Your task to perform on an android device: Do I have any events this weekend? Image 0: 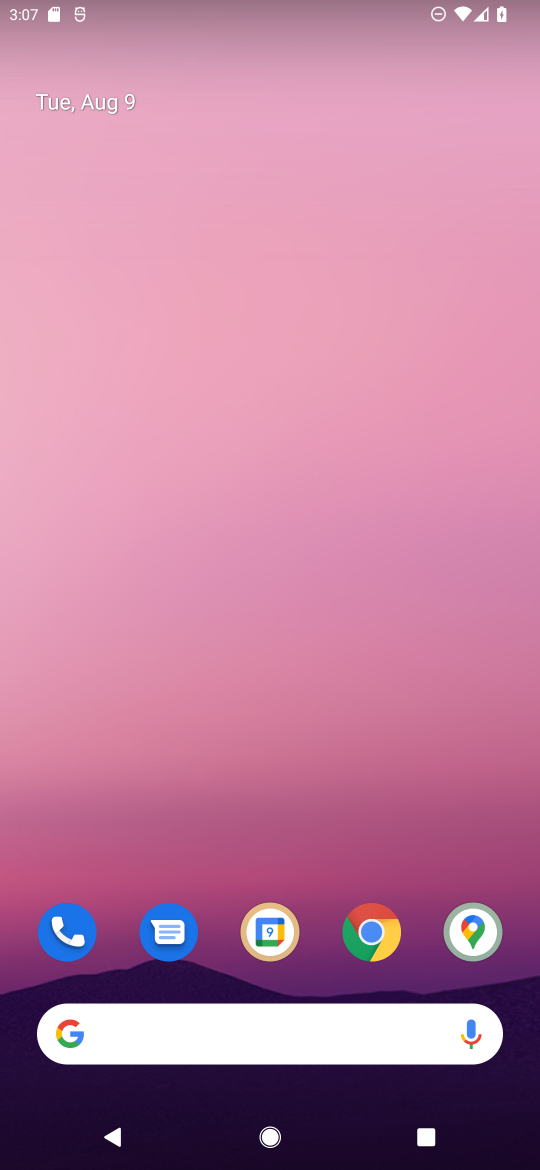
Step 0: drag from (67, 1097) to (324, 213)
Your task to perform on an android device: Do I have any events this weekend? Image 1: 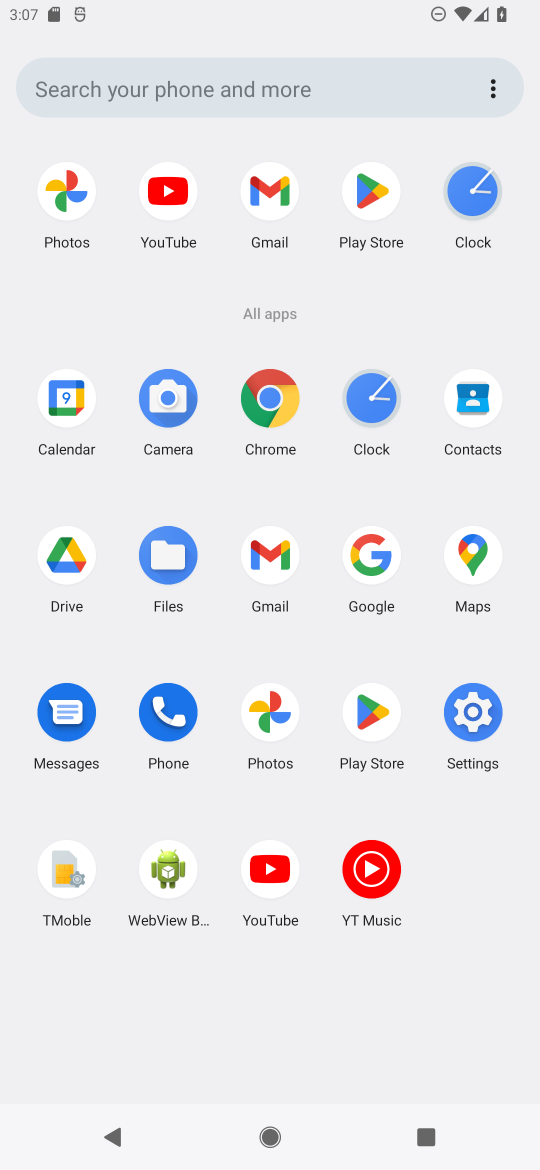
Step 1: click (269, 559)
Your task to perform on an android device: Do I have any events this weekend? Image 2: 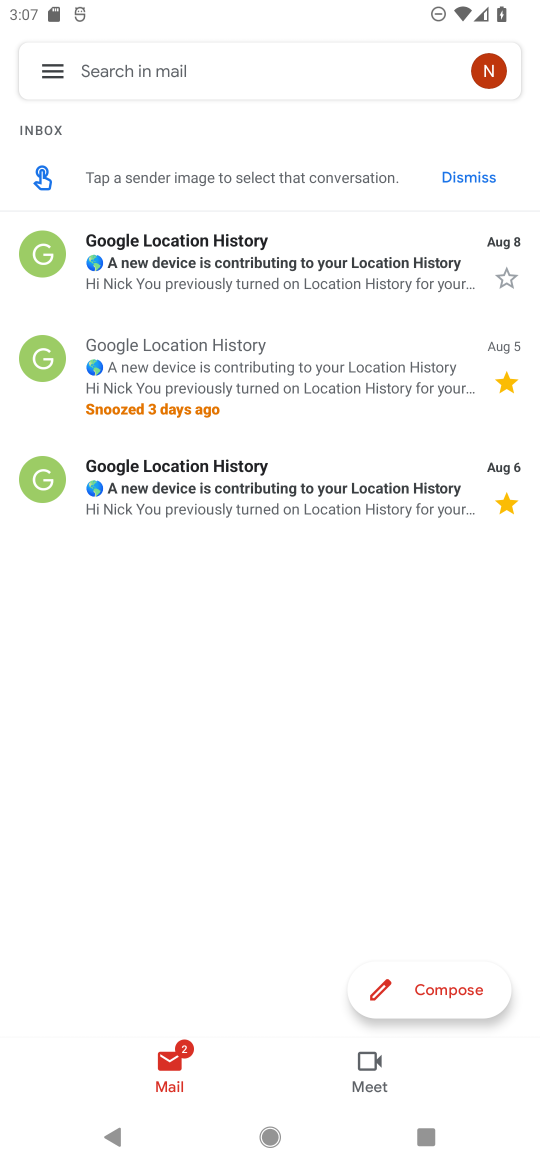
Step 2: press home button
Your task to perform on an android device: Do I have any events this weekend? Image 3: 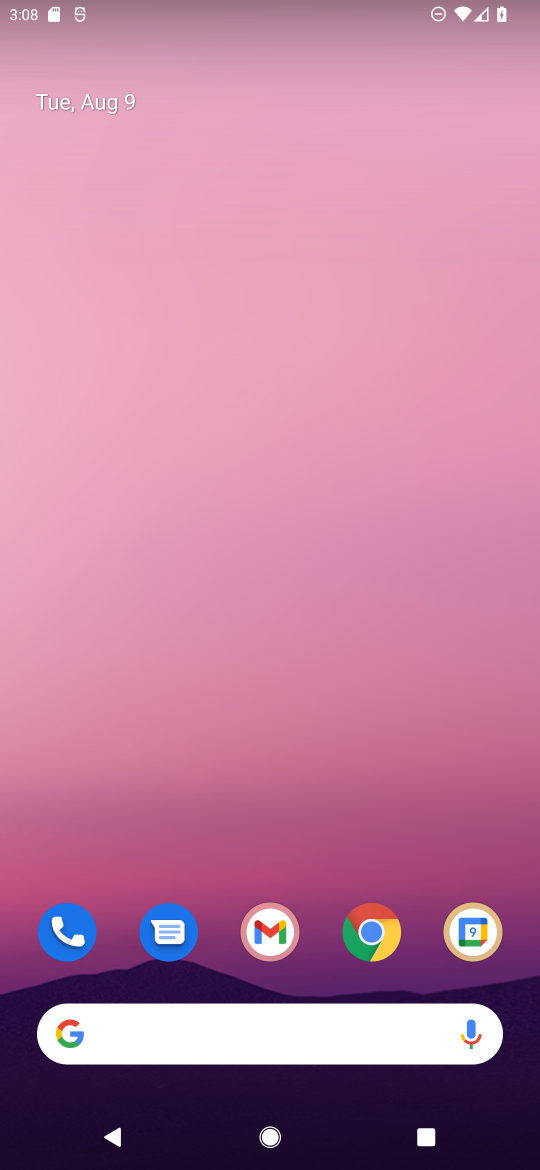
Step 3: drag from (96, 1118) to (0, 1053)
Your task to perform on an android device: Do I have any events this weekend? Image 4: 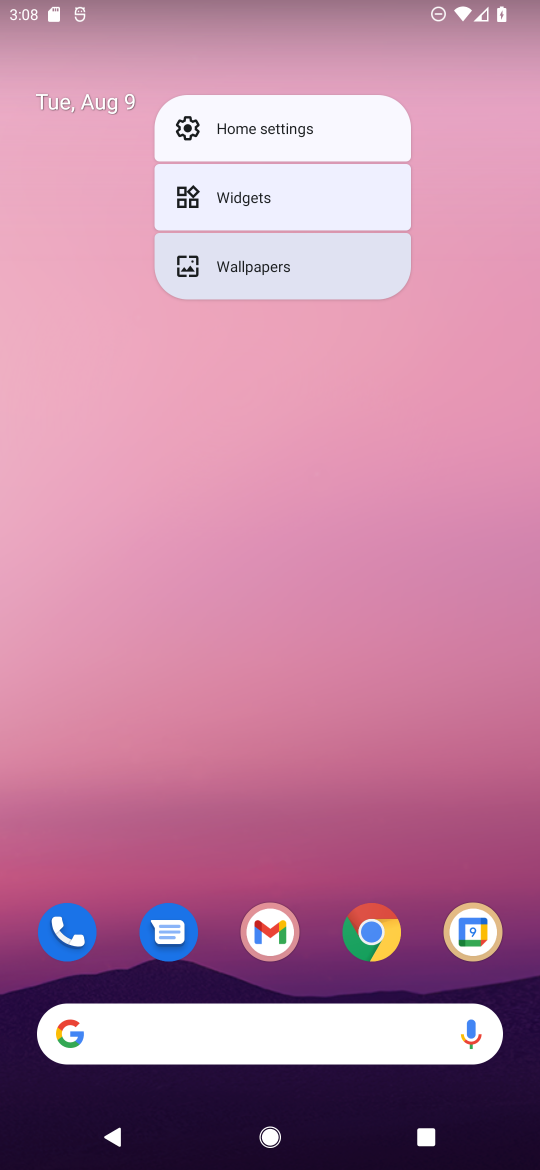
Step 4: drag from (46, 1119) to (335, 555)
Your task to perform on an android device: Do I have any events this weekend? Image 5: 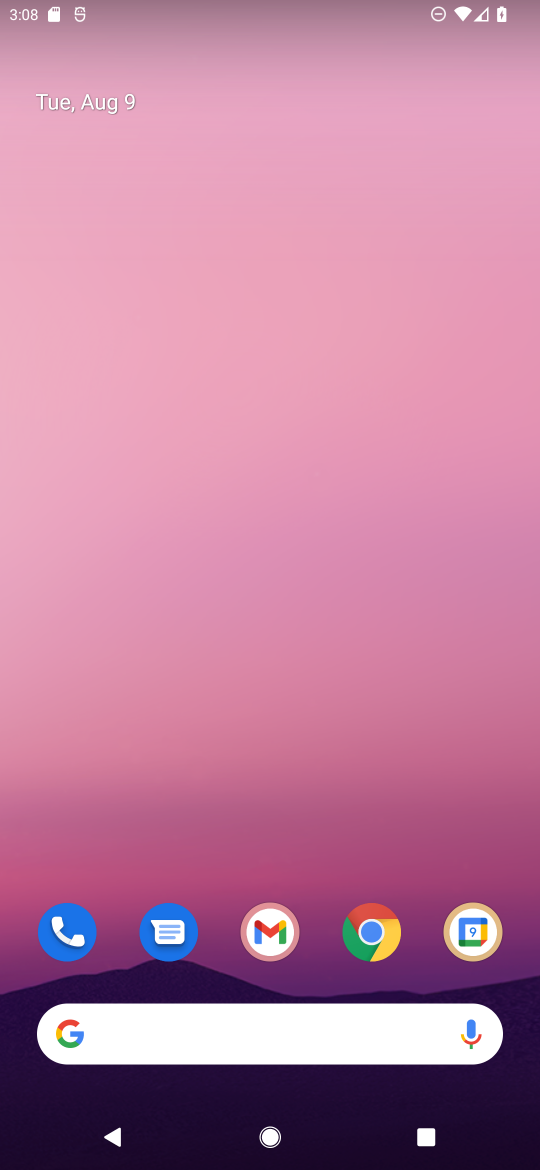
Step 5: drag from (71, 1141) to (311, 167)
Your task to perform on an android device: Do I have any events this weekend? Image 6: 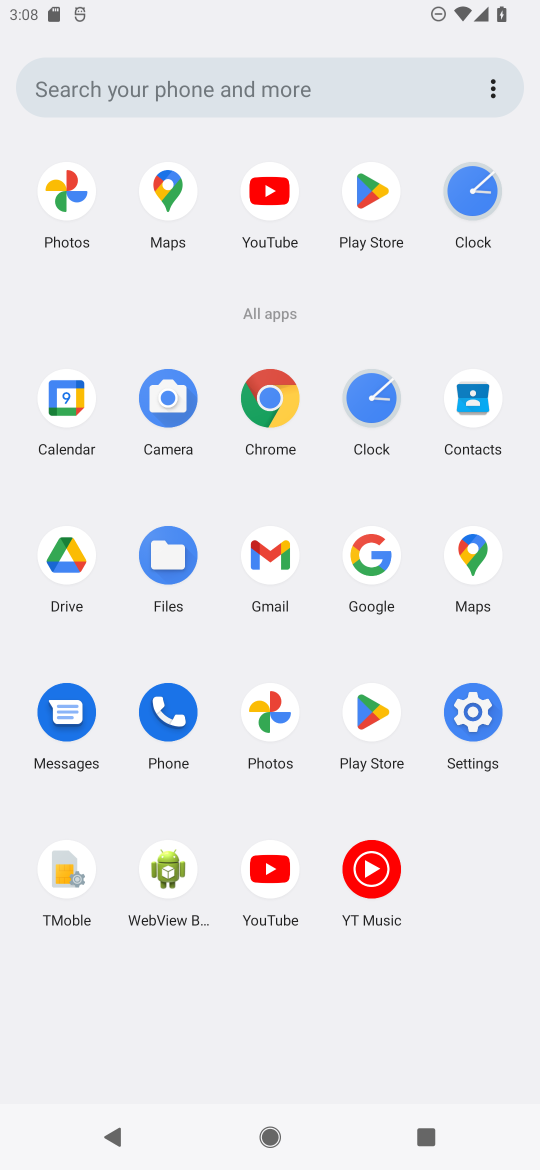
Step 6: click (74, 401)
Your task to perform on an android device: Do I have any events this weekend? Image 7: 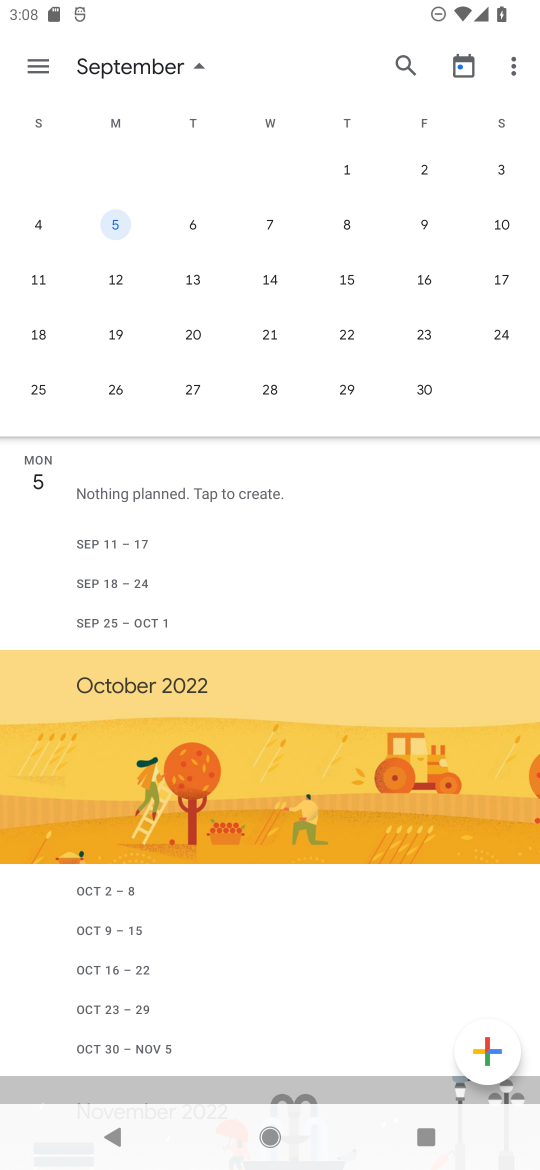
Step 7: task complete